Your task to perform on an android device: Go to Amazon Image 0: 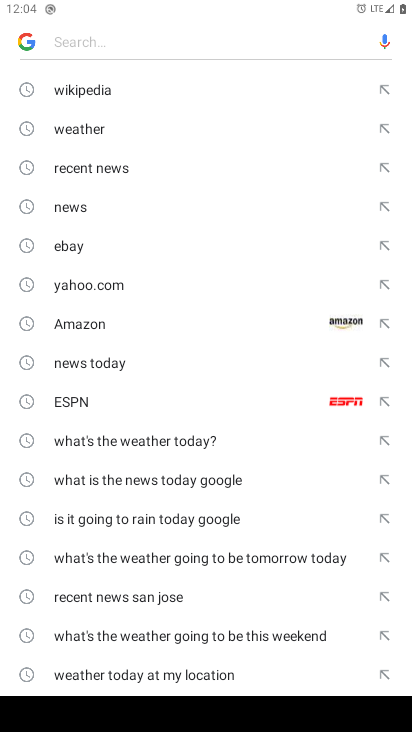
Step 0: click (331, 314)
Your task to perform on an android device: Go to Amazon Image 1: 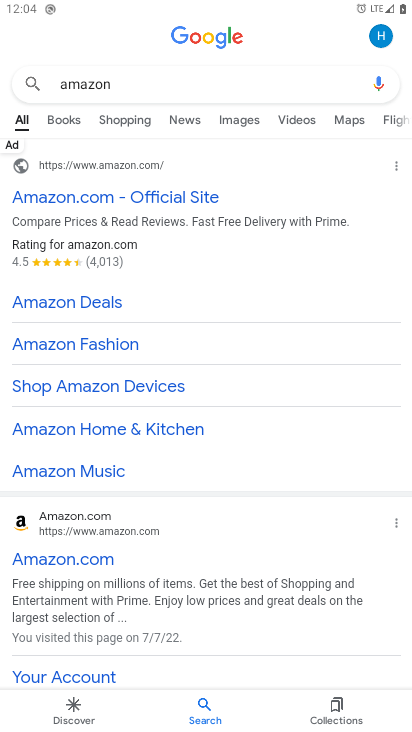
Step 1: click (52, 562)
Your task to perform on an android device: Go to Amazon Image 2: 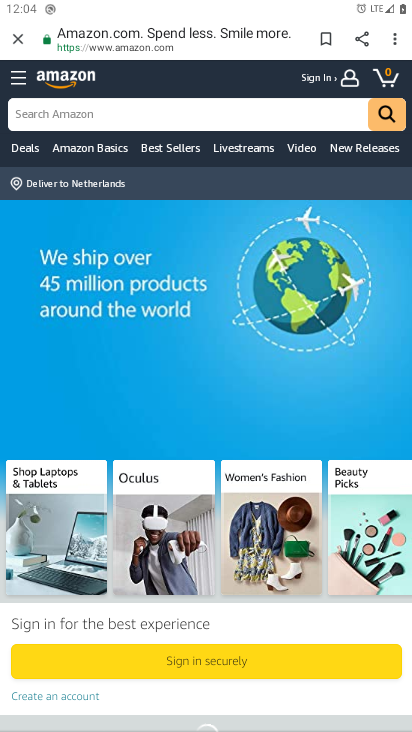
Step 2: task complete